Your task to perform on an android device: move a message to another label in the gmail app Image 0: 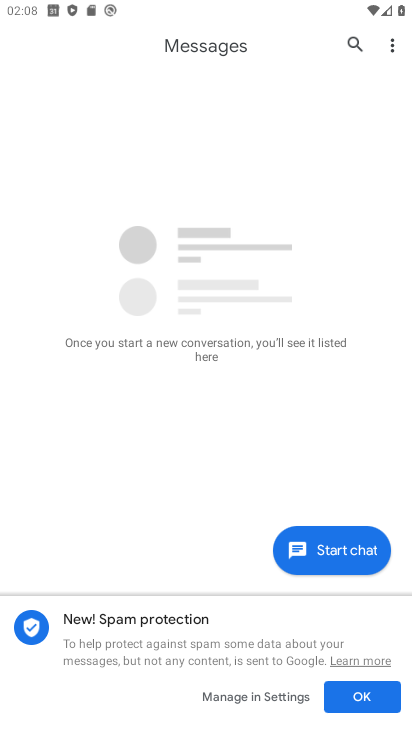
Step 0: press back button
Your task to perform on an android device: move a message to another label in the gmail app Image 1: 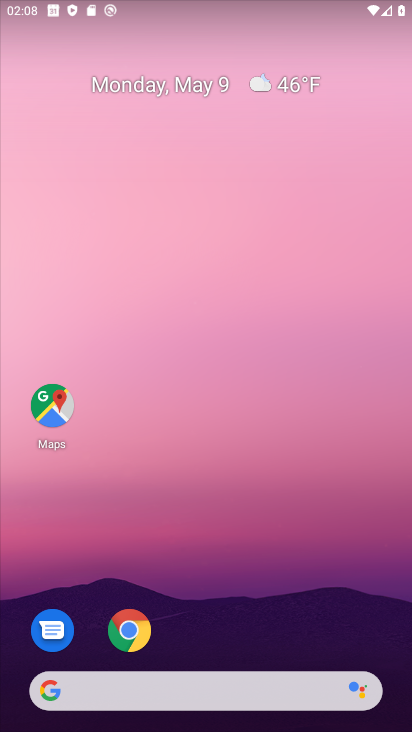
Step 1: drag from (212, 636) to (212, 195)
Your task to perform on an android device: move a message to another label in the gmail app Image 2: 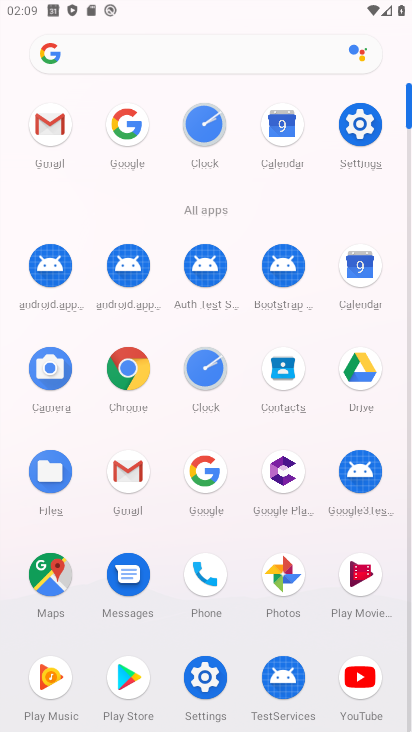
Step 2: click (120, 472)
Your task to perform on an android device: move a message to another label in the gmail app Image 3: 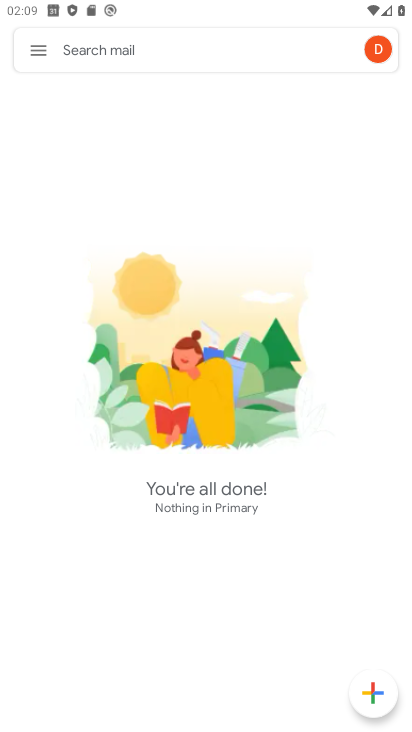
Step 3: click (32, 52)
Your task to perform on an android device: move a message to another label in the gmail app Image 4: 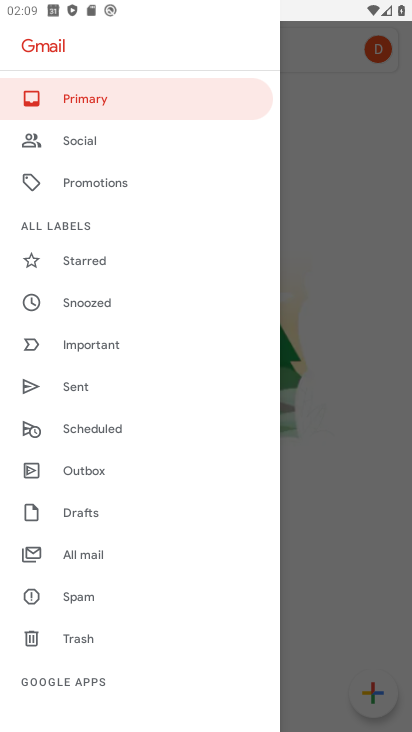
Step 4: click (86, 557)
Your task to perform on an android device: move a message to another label in the gmail app Image 5: 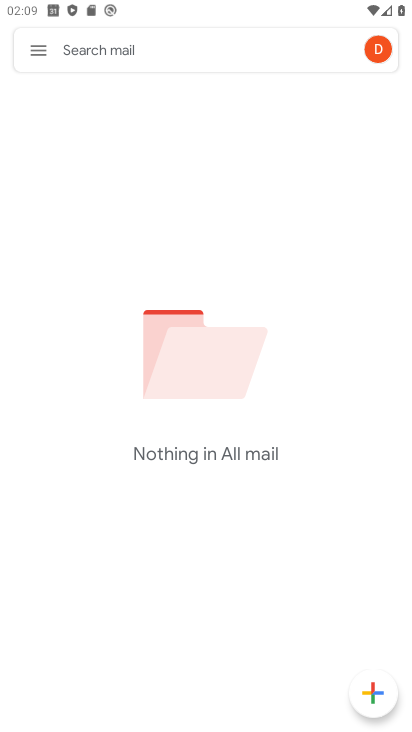
Step 5: click (39, 46)
Your task to perform on an android device: move a message to another label in the gmail app Image 6: 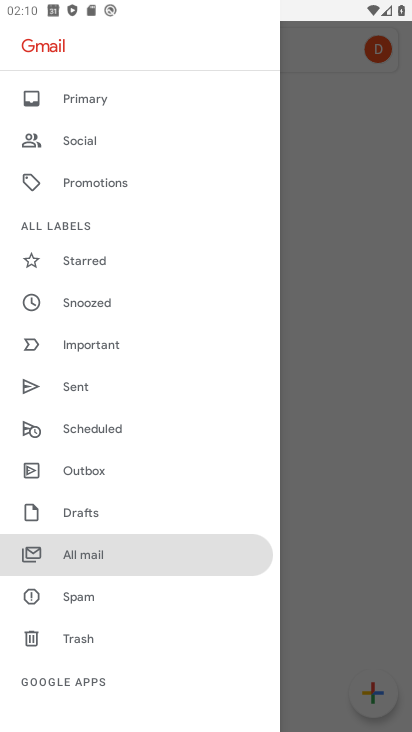
Step 6: drag from (125, 456) to (130, 334)
Your task to perform on an android device: move a message to another label in the gmail app Image 7: 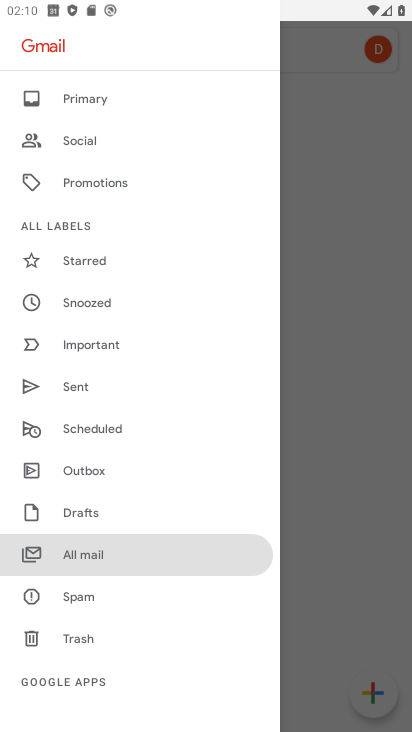
Step 7: click (73, 638)
Your task to perform on an android device: move a message to another label in the gmail app Image 8: 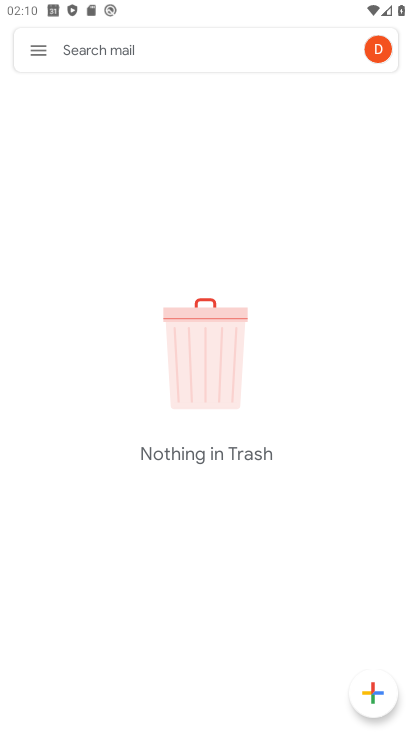
Step 8: task complete